Your task to perform on an android device: Open the stopwatch Image 0: 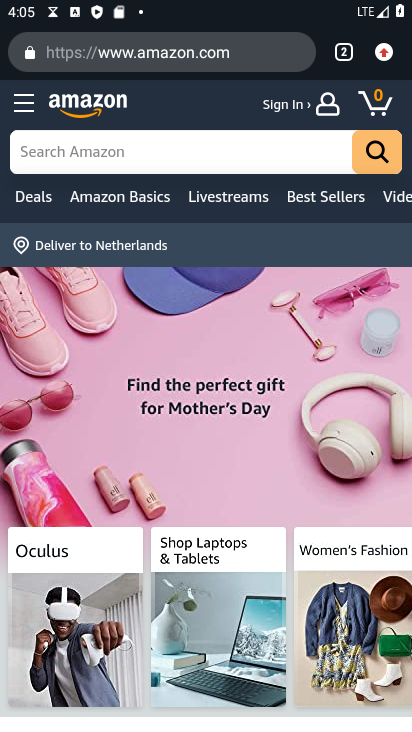
Step 0: press home button
Your task to perform on an android device: Open the stopwatch Image 1: 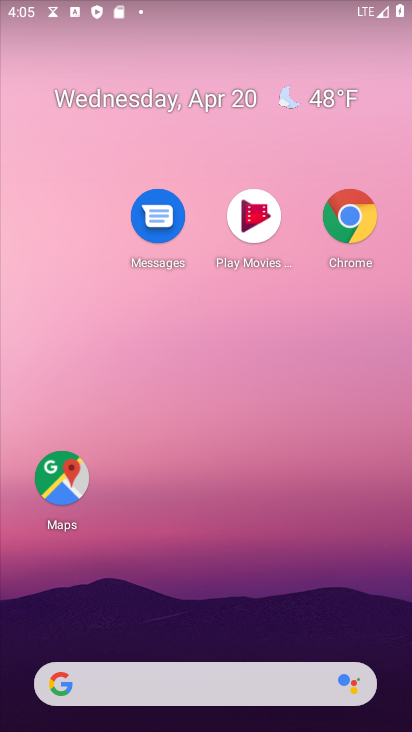
Step 1: drag from (281, 524) to (266, 67)
Your task to perform on an android device: Open the stopwatch Image 2: 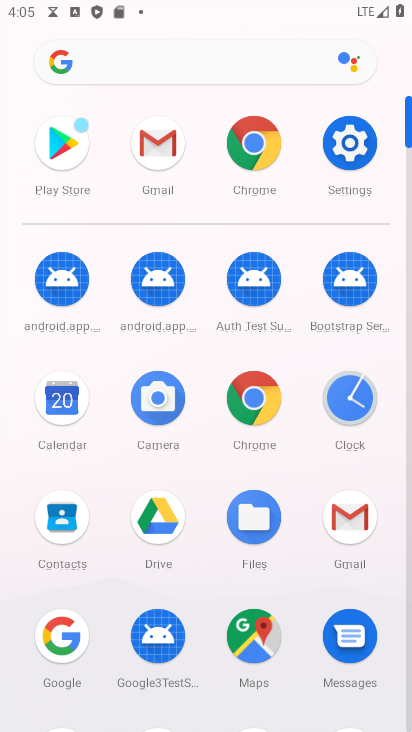
Step 2: click (344, 404)
Your task to perform on an android device: Open the stopwatch Image 3: 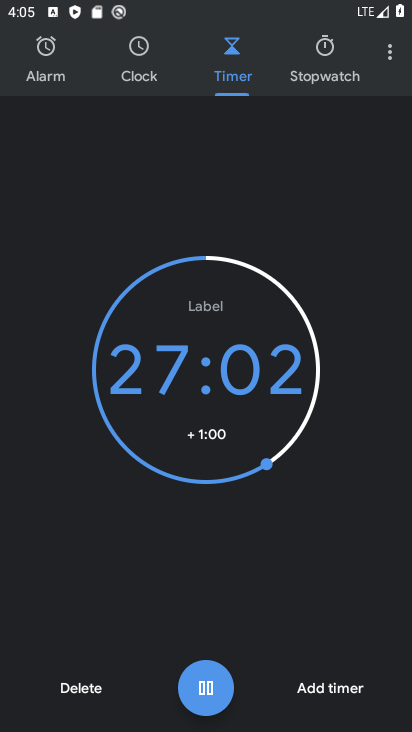
Step 3: click (312, 69)
Your task to perform on an android device: Open the stopwatch Image 4: 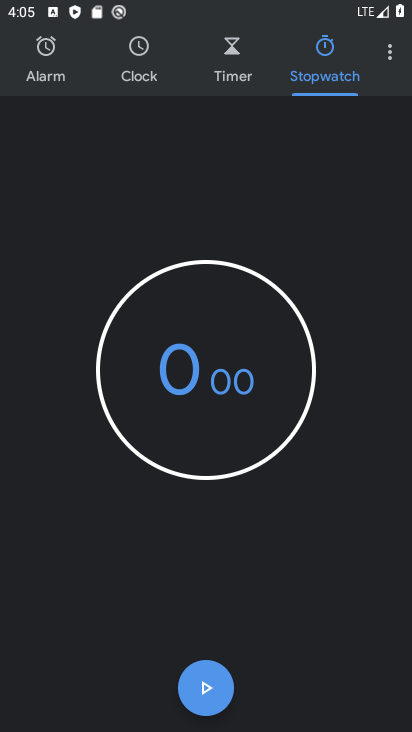
Step 4: task complete